Your task to perform on an android device: turn on location history Image 0: 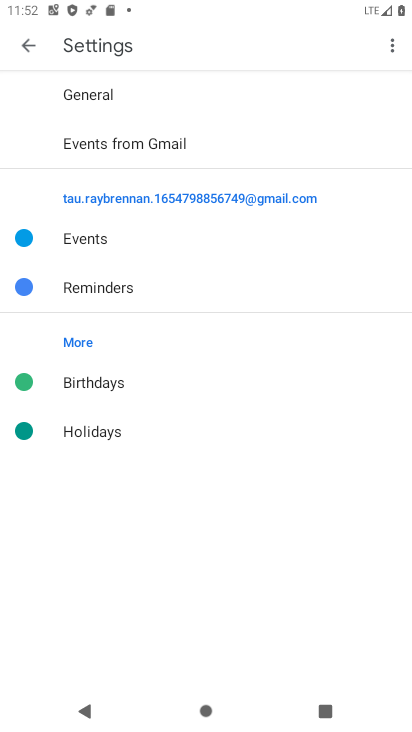
Step 0: press home button
Your task to perform on an android device: turn on location history Image 1: 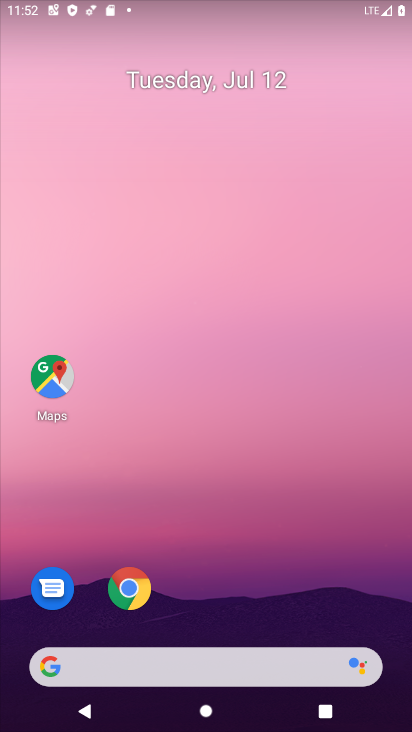
Step 1: drag from (394, 680) to (332, 159)
Your task to perform on an android device: turn on location history Image 2: 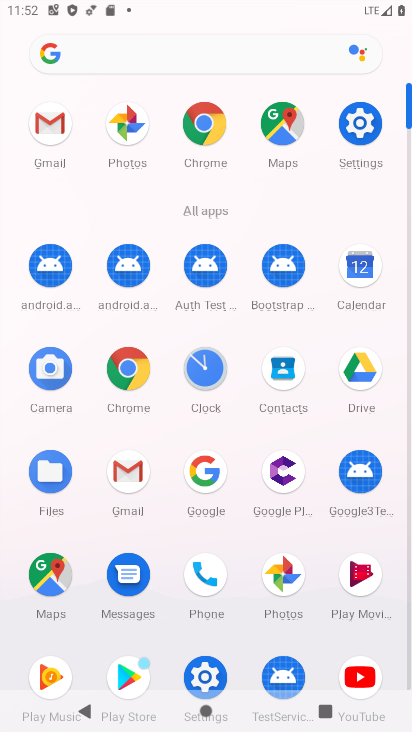
Step 2: click (360, 129)
Your task to perform on an android device: turn on location history Image 3: 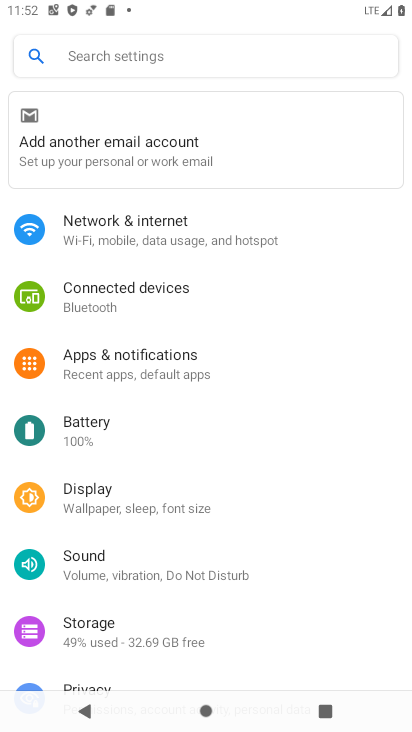
Step 3: drag from (224, 627) to (231, 396)
Your task to perform on an android device: turn on location history Image 4: 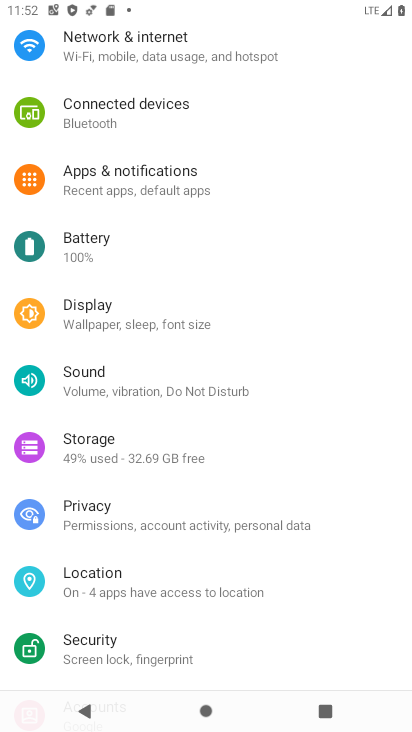
Step 4: click (95, 571)
Your task to perform on an android device: turn on location history Image 5: 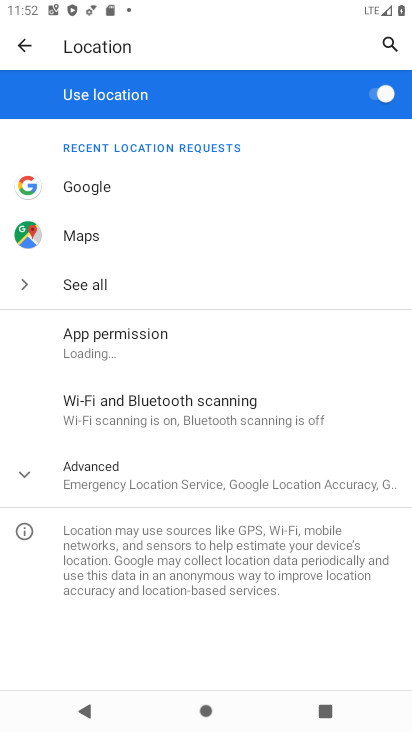
Step 5: click (24, 473)
Your task to perform on an android device: turn on location history Image 6: 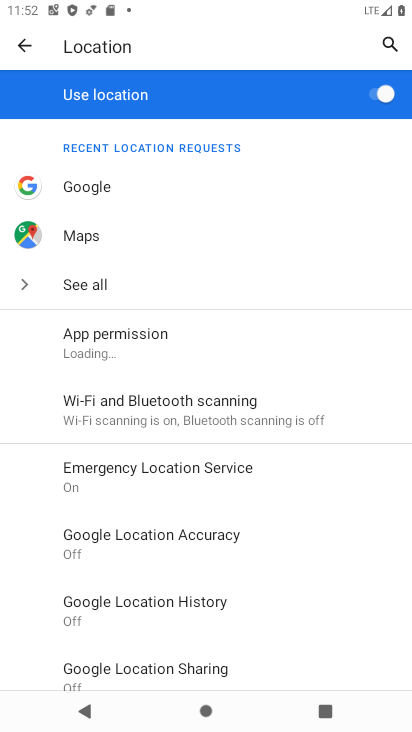
Step 6: click (175, 603)
Your task to perform on an android device: turn on location history Image 7: 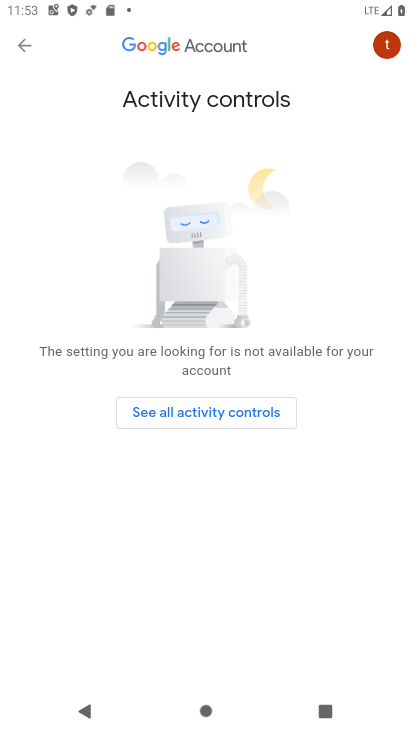
Step 7: press home button
Your task to perform on an android device: turn on location history Image 8: 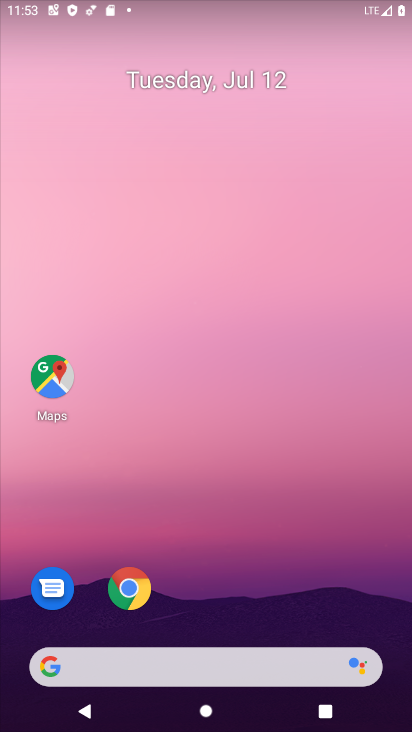
Step 8: drag from (398, 695) to (330, 169)
Your task to perform on an android device: turn on location history Image 9: 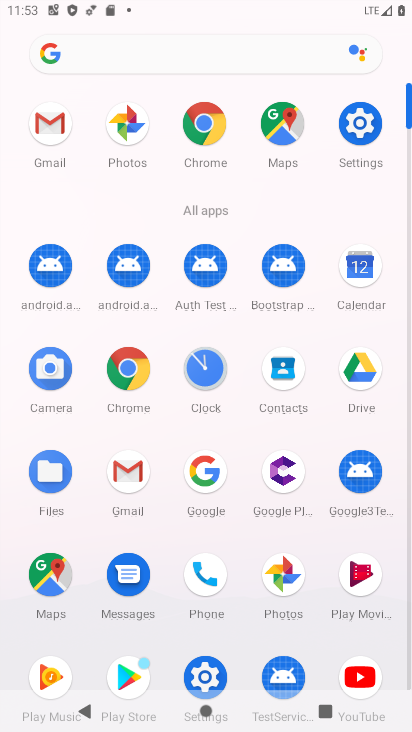
Step 9: click (364, 123)
Your task to perform on an android device: turn on location history Image 10: 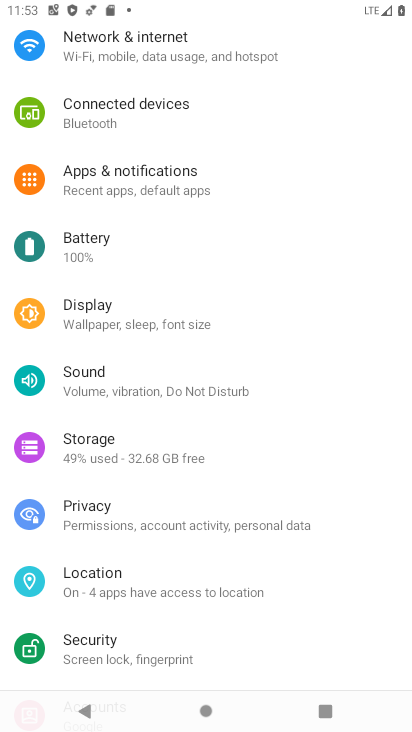
Step 10: click (87, 580)
Your task to perform on an android device: turn on location history Image 11: 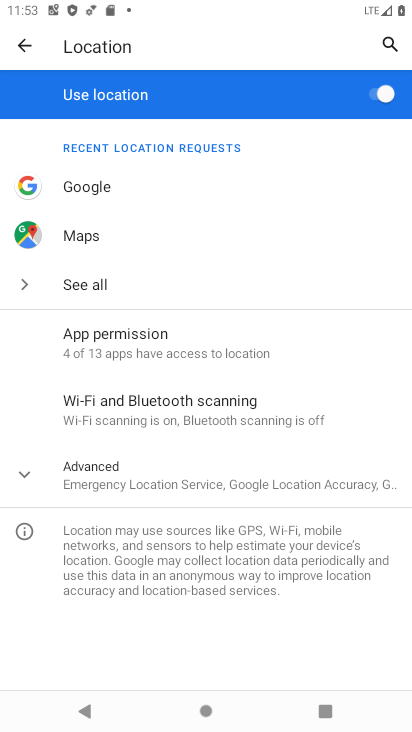
Step 11: click (24, 472)
Your task to perform on an android device: turn on location history Image 12: 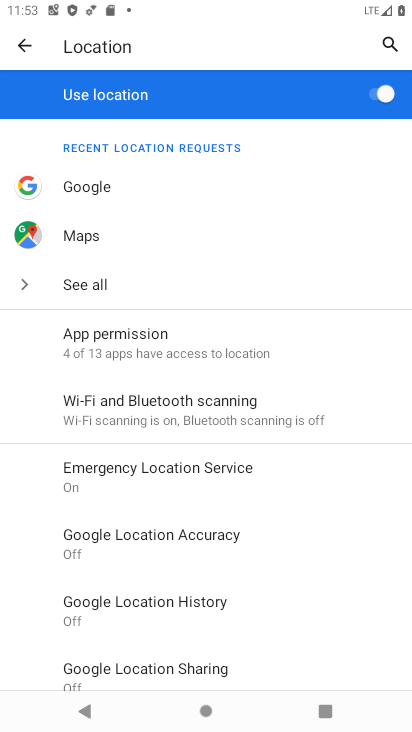
Step 12: click (107, 608)
Your task to perform on an android device: turn on location history Image 13: 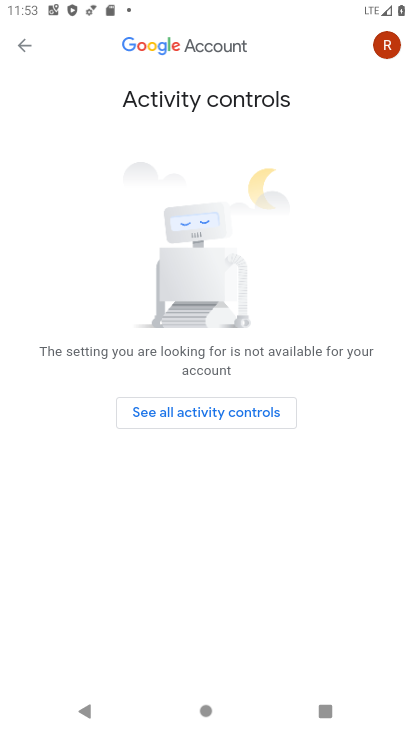
Step 13: click (20, 46)
Your task to perform on an android device: turn on location history Image 14: 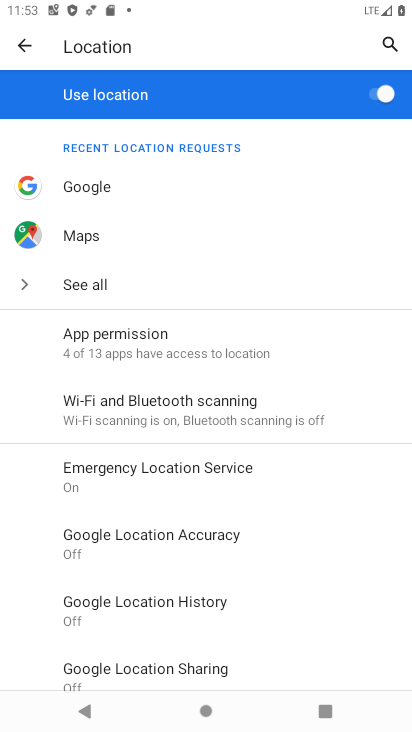
Step 14: click (95, 613)
Your task to perform on an android device: turn on location history Image 15: 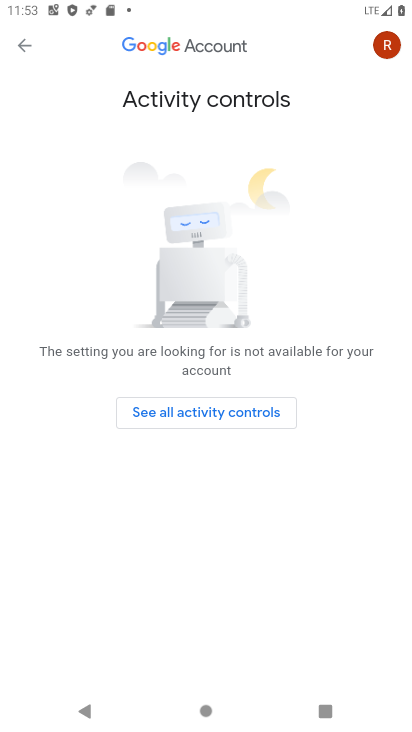
Step 15: drag from (327, 527) to (316, 196)
Your task to perform on an android device: turn on location history Image 16: 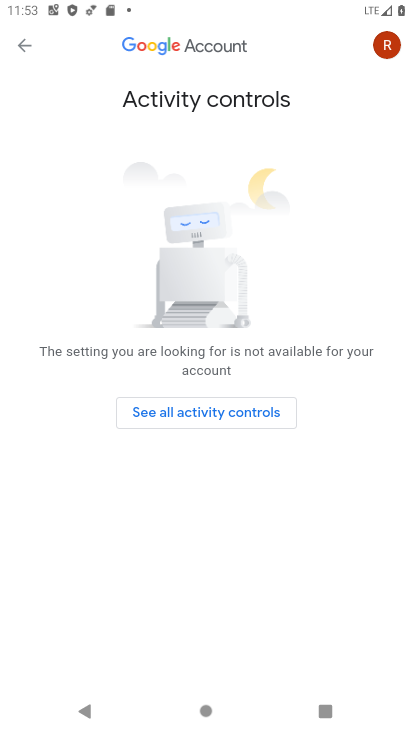
Step 16: drag from (309, 491) to (310, 194)
Your task to perform on an android device: turn on location history Image 17: 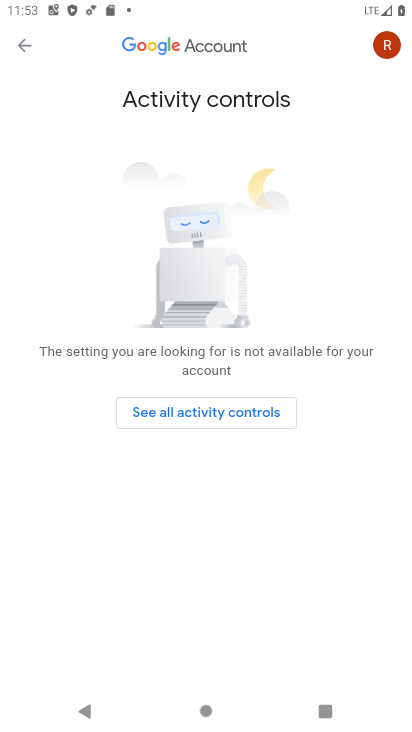
Step 17: click (230, 411)
Your task to perform on an android device: turn on location history Image 18: 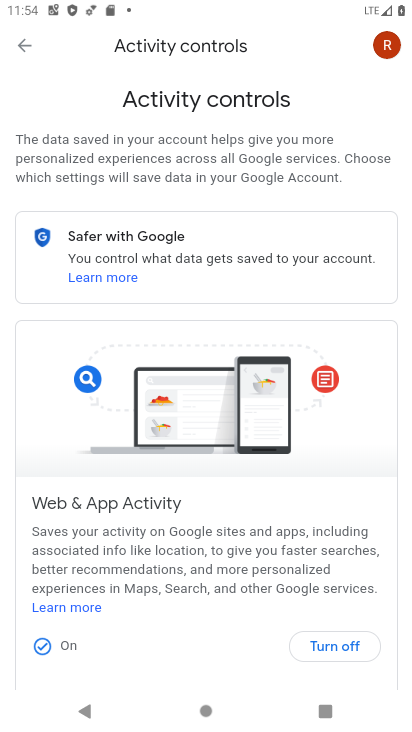
Step 18: click (320, 637)
Your task to perform on an android device: turn on location history Image 19: 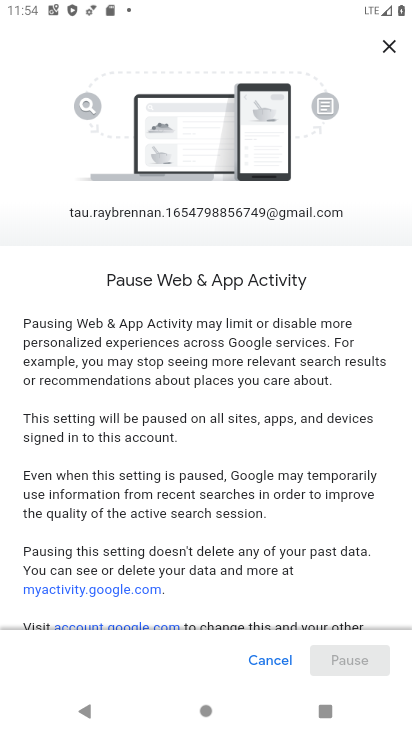
Step 19: drag from (274, 549) to (288, 225)
Your task to perform on an android device: turn on location history Image 20: 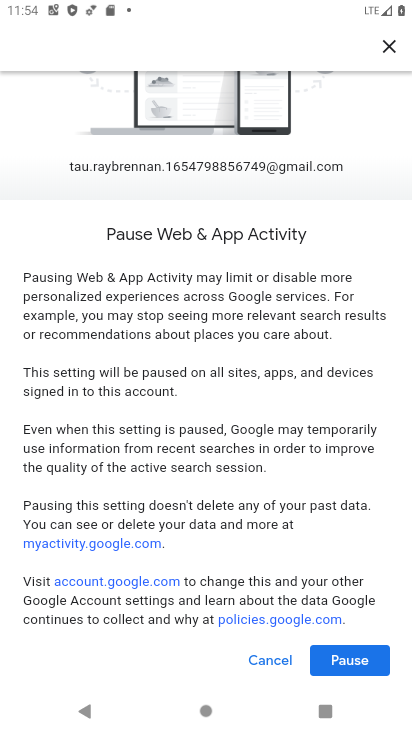
Step 20: click (363, 664)
Your task to perform on an android device: turn on location history Image 21: 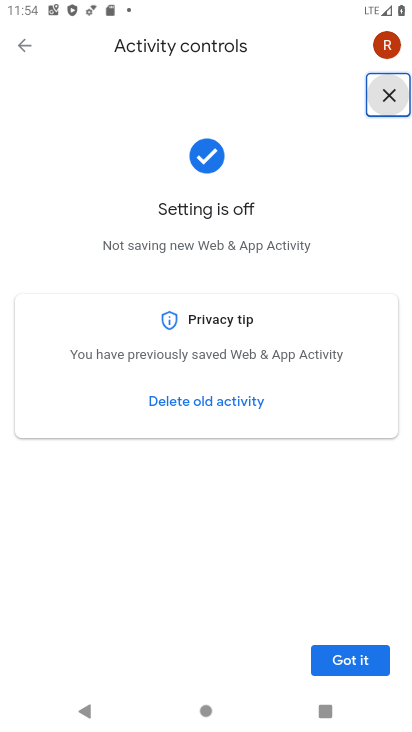
Step 21: click (355, 657)
Your task to perform on an android device: turn on location history Image 22: 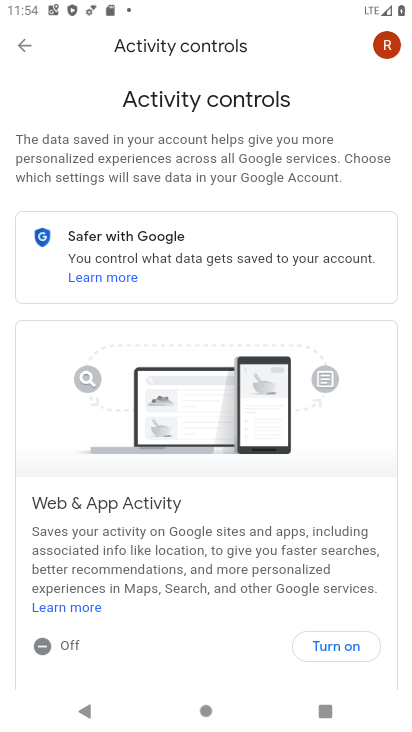
Step 22: click (340, 642)
Your task to perform on an android device: turn on location history Image 23: 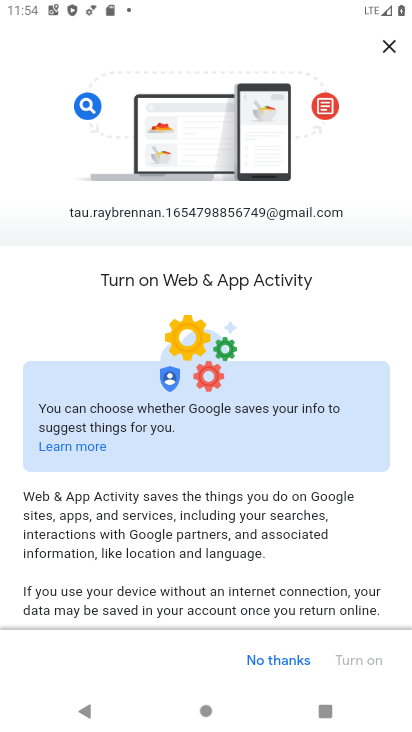
Step 23: drag from (331, 580) to (320, 273)
Your task to perform on an android device: turn on location history Image 24: 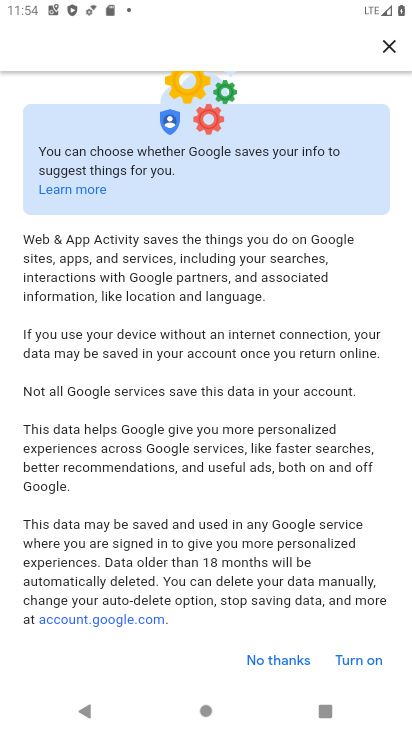
Step 24: click (358, 664)
Your task to perform on an android device: turn on location history Image 25: 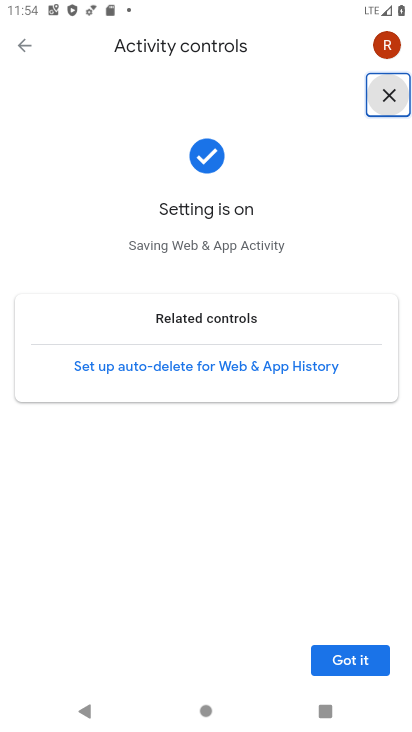
Step 25: click (374, 660)
Your task to perform on an android device: turn on location history Image 26: 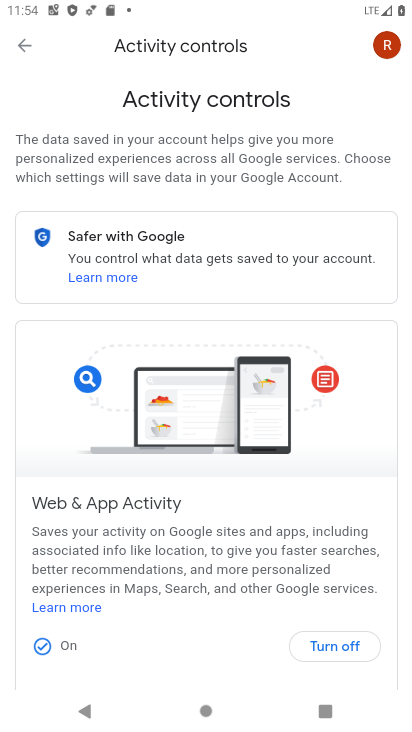
Step 26: task complete